Your task to perform on an android device: Do I have any events this weekend? Image 0: 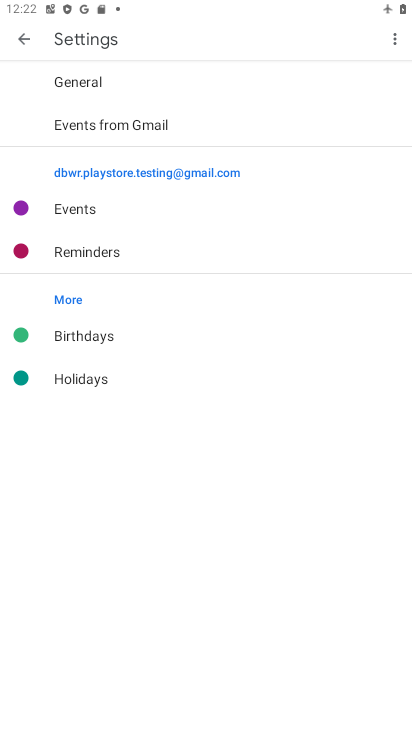
Step 0: click (351, 460)
Your task to perform on an android device: Do I have any events this weekend? Image 1: 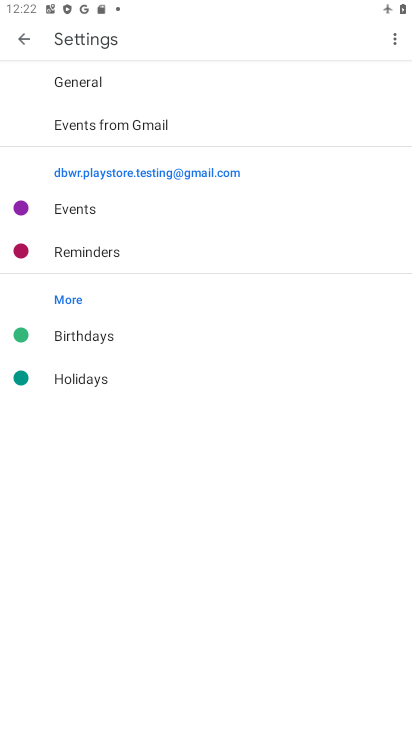
Step 1: press home button
Your task to perform on an android device: Do I have any events this weekend? Image 2: 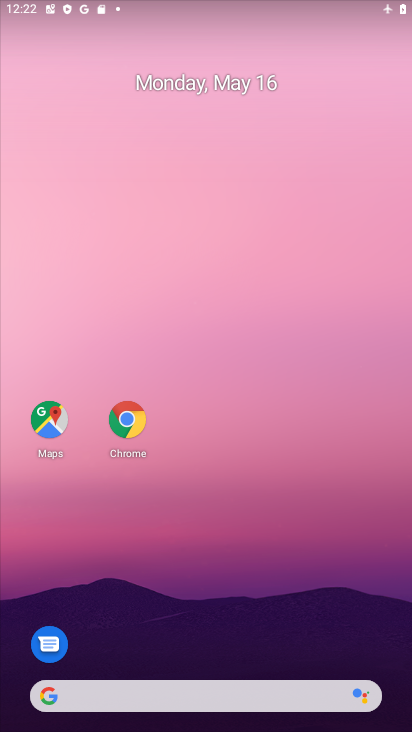
Step 2: drag from (204, 504) to (310, 93)
Your task to perform on an android device: Do I have any events this weekend? Image 3: 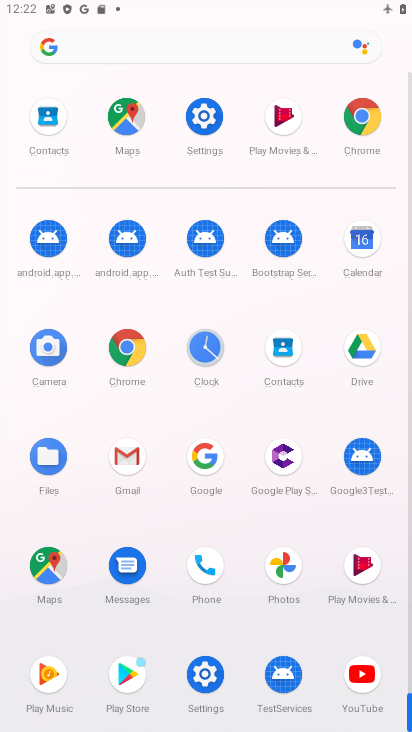
Step 3: click (351, 244)
Your task to perform on an android device: Do I have any events this weekend? Image 4: 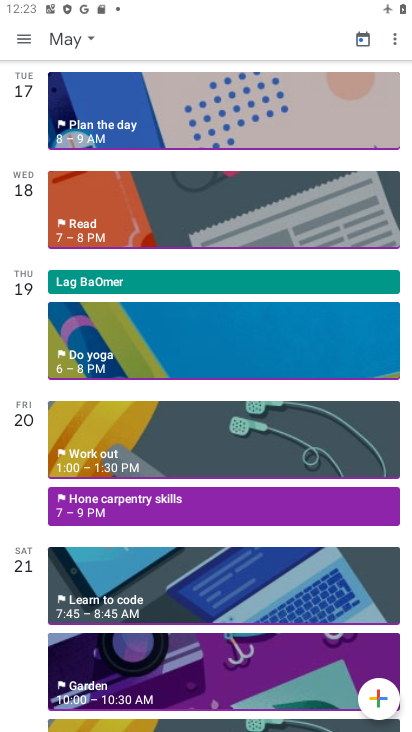
Step 4: click (82, 50)
Your task to perform on an android device: Do I have any events this weekend? Image 5: 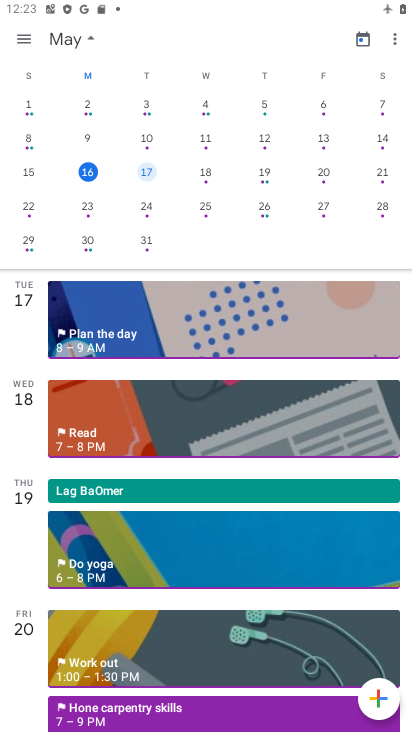
Step 5: click (201, 174)
Your task to perform on an android device: Do I have any events this weekend? Image 6: 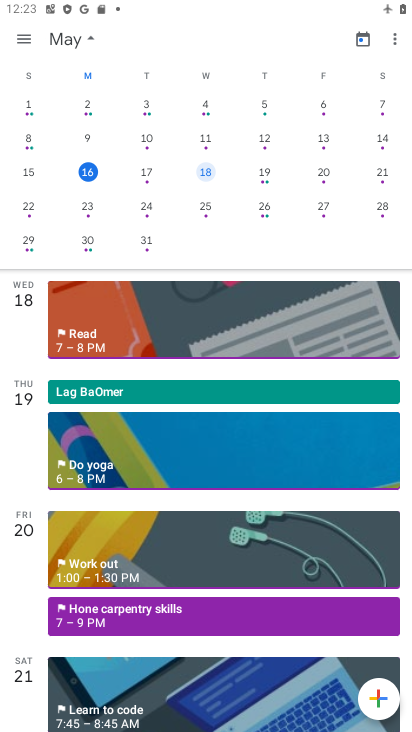
Step 6: task complete